Your task to perform on an android device: Empty the shopping cart on amazon. Add usb-c to usb-b to the cart on amazon Image 0: 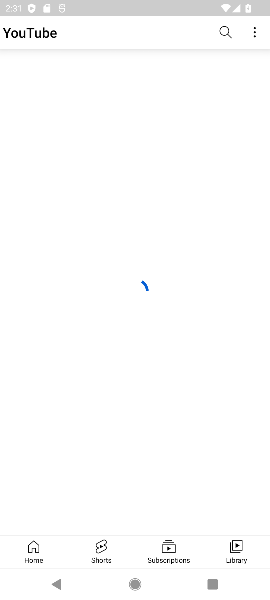
Step 0: press home button
Your task to perform on an android device: Empty the shopping cart on amazon. Add usb-c to usb-b to the cart on amazon Image 1: 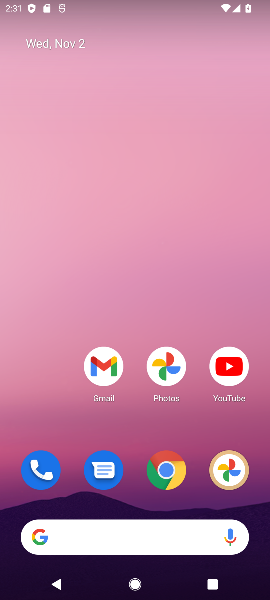
Step 1: drag from (119, 500) to (124, 181)
Your task to perform on an android device: Empty the shopping cart on amazon. Add usb-c to usb-b to the cart on amazon Image 2: 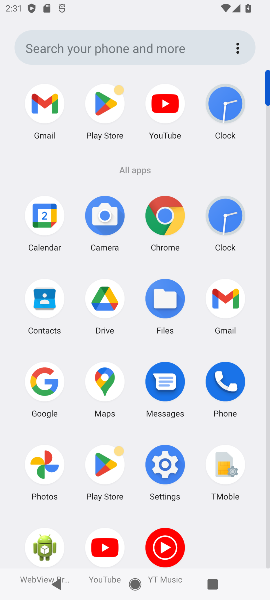
Step 2: click (43, 380)
Your task to perform on an android device: Empty the shopping cart on amazon. Add usb-c to usb-b to the cart on amazon Image 3: 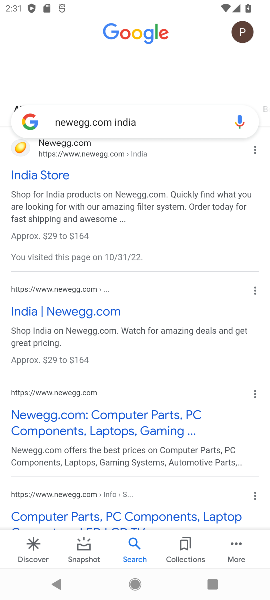
Step 3: click (165, 122)
Your task to perform on an android device: Empty the shopping cart on amazon. Add usb-c to usb-b to the cart on amazon Image 4: 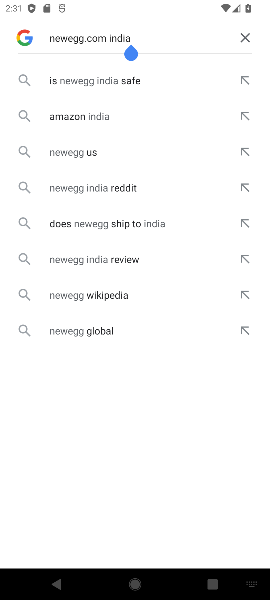
Step 4: click (248, 31)
Your task to perform on an android device: Empty the shopping cart on amazon. Add usb-c to usb-b to the cart on amazon Image 5: 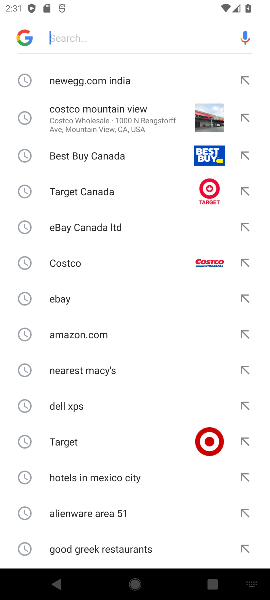
Step 5: click (125, 31)
Your task to perform on an android device: Empty the shopping cart on amazon. Add usb-c to usb-b to the cart on amazon Image 6: 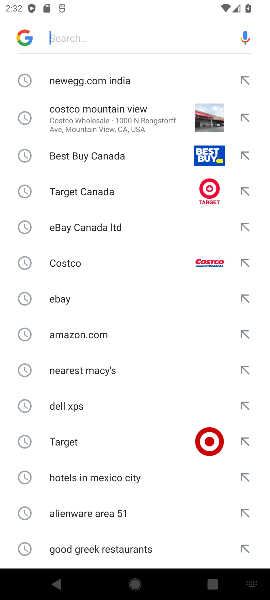
Step 6: type "amazon "
Your task to perform on an android device: Empty the shopping cart on amazon. Add usb-c to usb-b to the cart on amazon Image 7: 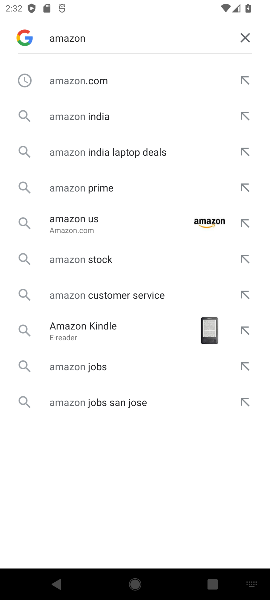
Step 7: click (64, 77)
Your task to perform on an android device: Empty the shopping cart on amazon. Add usb-c to usb-b to the cart on amazon Image 8: 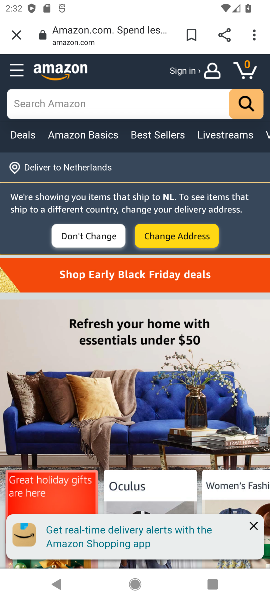
Step 8: click (143, 93)
Your task to perform on an android device: Empty the shopping cart on amazon. Add usb-c to usb-b to the cart on amazon Image 9: 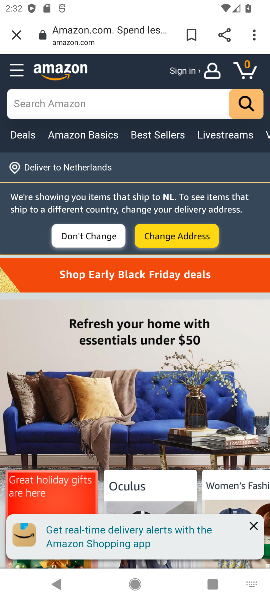
Step 9: click (143, 102)
Your task to perform on an android device: Empty the shopping cart on amazon. Add usb-c to usb-b to the cart on amazon Image 10: 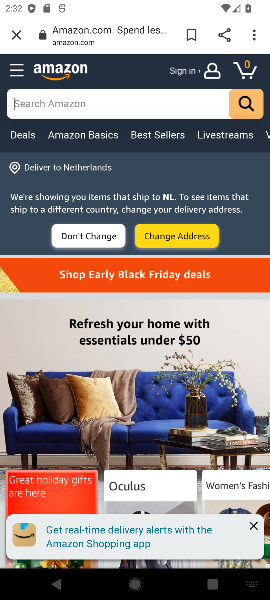
Step 10: type " usb-c to usb-b "
Your task to perform on an android device: Empty the shopping cart on amazon. Add usb-c to usb-b to the cart on amazon Image 11: 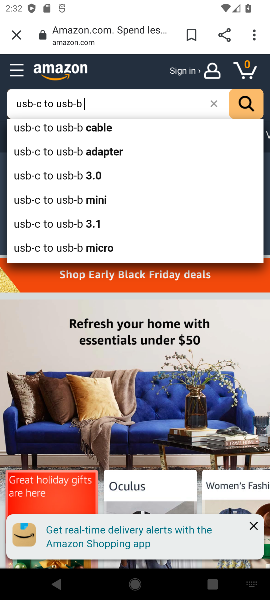
Step 11: click (71, 128)
Your task to perform on an android device: Empty the shopping cart on amazon. Add usb-c to usb-b to the cart on amazon Image 12: 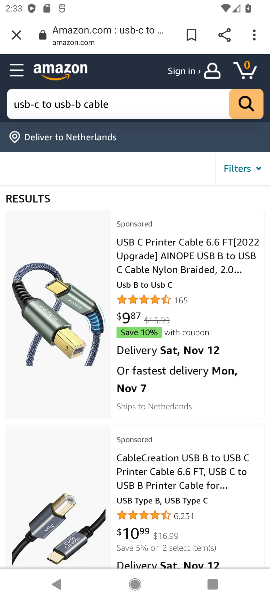
Step 12: click (171, 254)
Your task to perform on an android device: Empty the shopping cart on amazon. Add usb-c to usb-b to the cart on amazon Image 13: 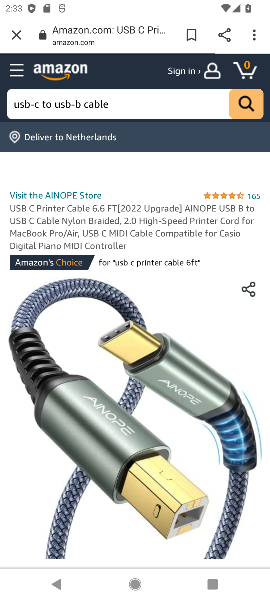
Step 13: drag from (145, 504) to (166, 190)
Your task to perform on an android device: Empty the shopping cart on amazon. Add usb-c to usb-b to the cart on amazon Image 14: 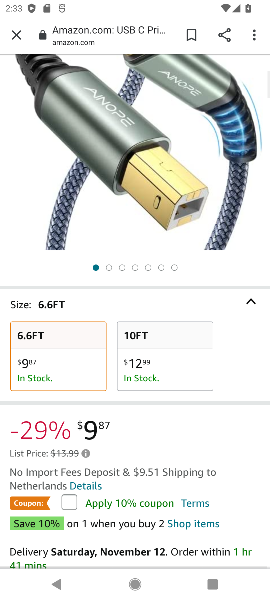
Step 14: drag from (130, 451) to (139, 266)
Your task to perform on an android device: Empty the shopping cart on amazon. Add usb-c to usb-b to the cart on amazon Image 15: 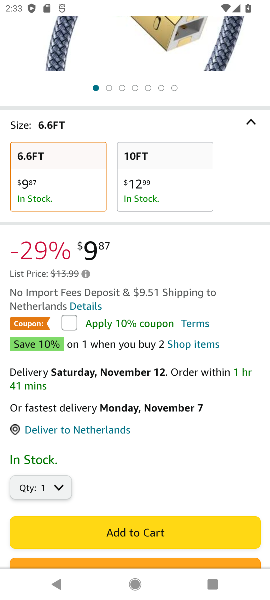
Step 15: click (110, 527)
Your task to perform on an android device: Empty the shopping cart on amazon. Add usb-c to usb-b to the cart on amazon Image 16: 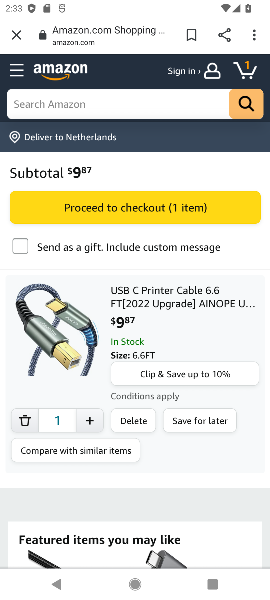
Step 16: task complete